Your task to perform on an android device: open app "Grab" Image 0: 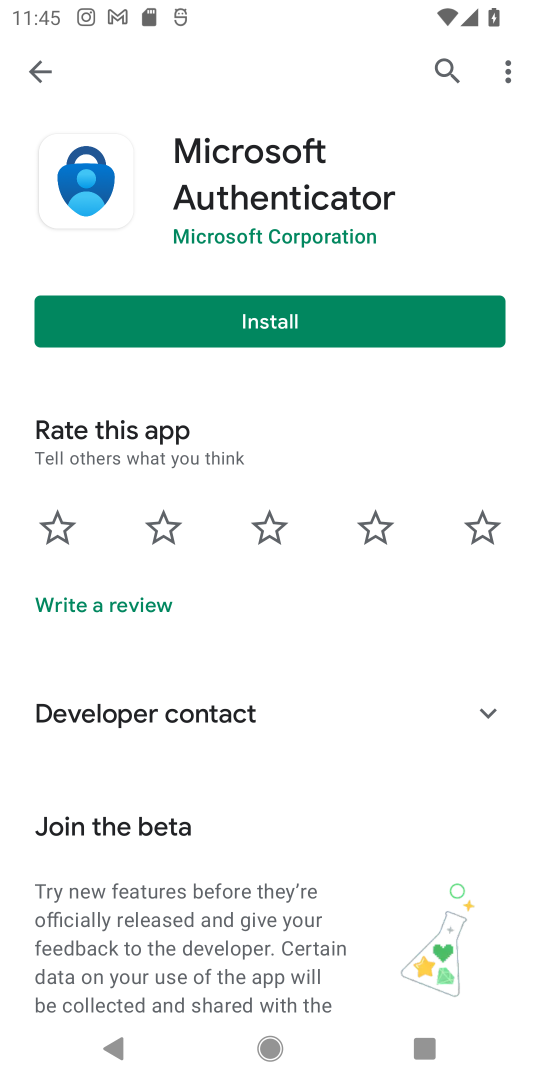
Step 0: click (422, 65)
Your task to perform on an android device: open app "Grab" Image 1: 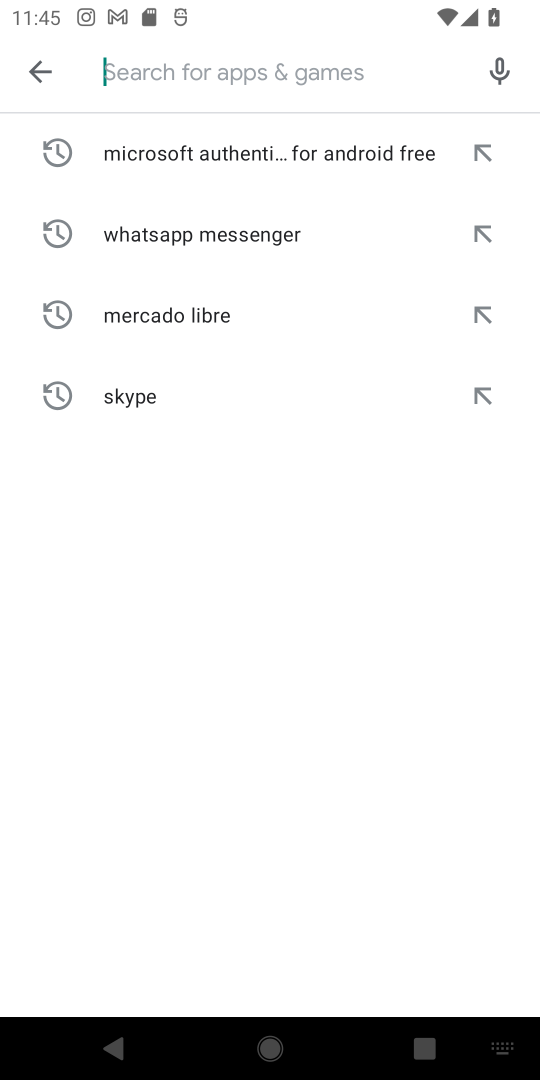
Step 1: click (151, 54)
Your task to perform on an android device: open app "Grab" Image 2: 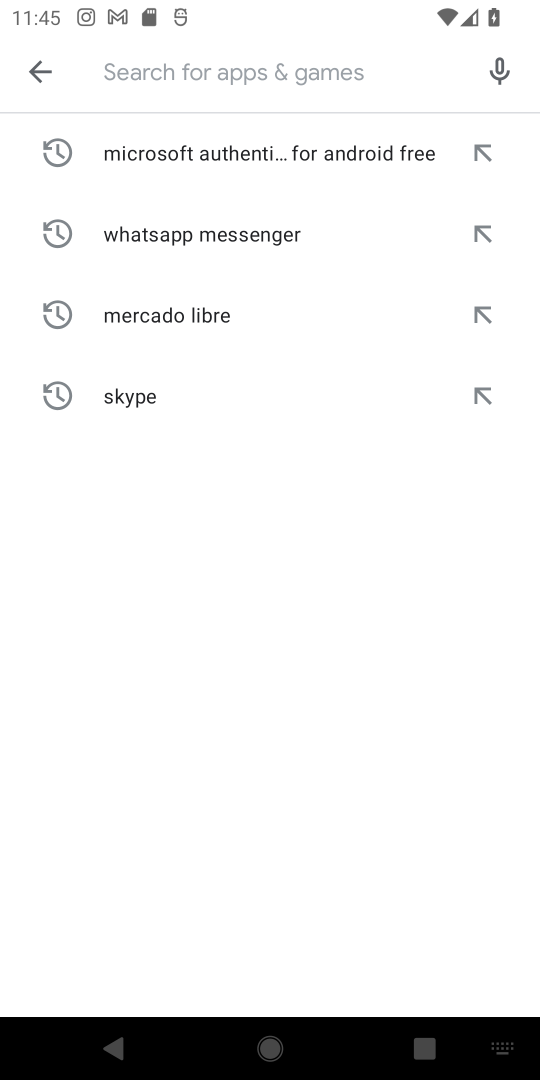
Step 2: type "Grab"
Your task to perform on an android device: open app "Grab" Image 3: 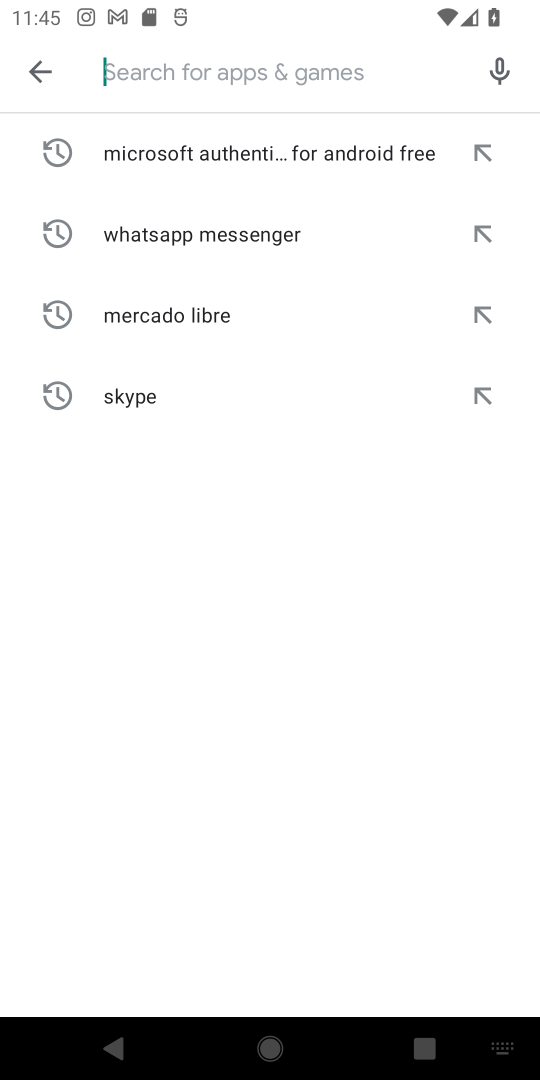
Step 3: click (244, 607)
Your task to perform on an android device: open app "Grab" Image 4: 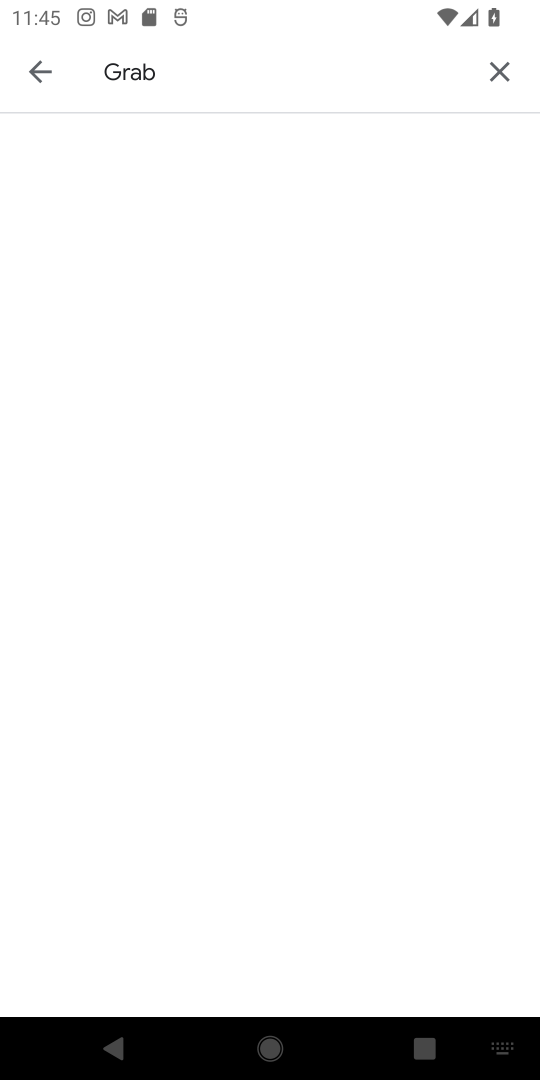
Step 4: press home button
Your task to perform on an android device: open app "Grab" Image 5: 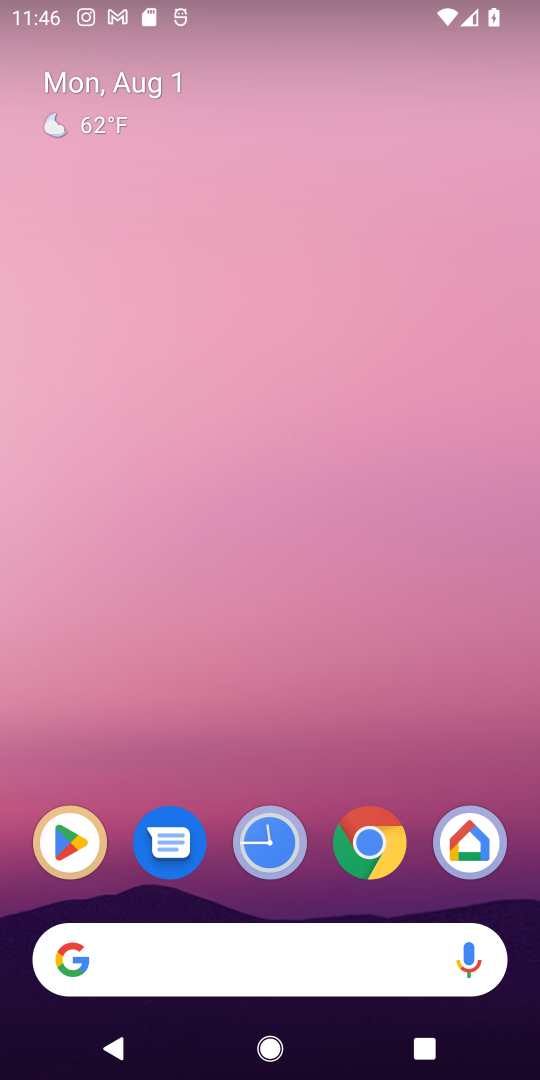
Step 5: click (85, 851)
Your task to perform on an android device: open app "Grab" Image 6: 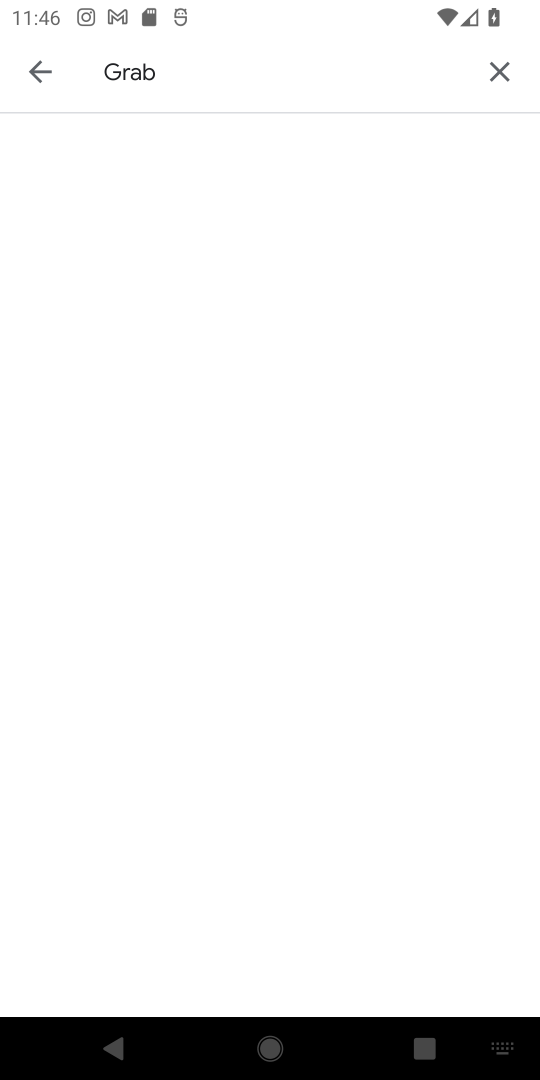
Step 6: task complete